Your task to perform on an android device: add a contact Image 0: 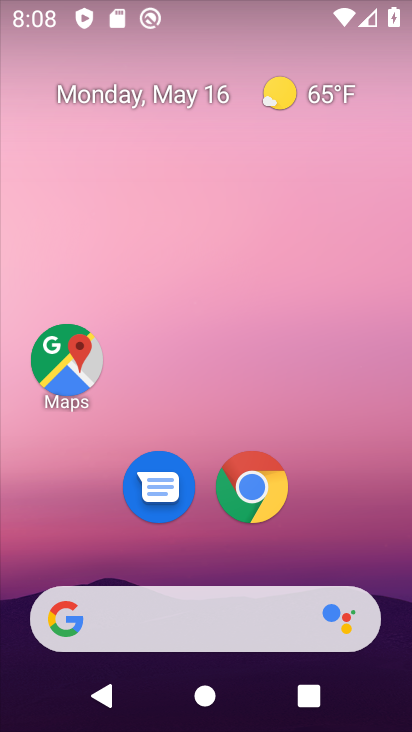
Step 0: drag from (349, 543) to (372, 189)
Your task to perform on an android device: add a contact Image 1: 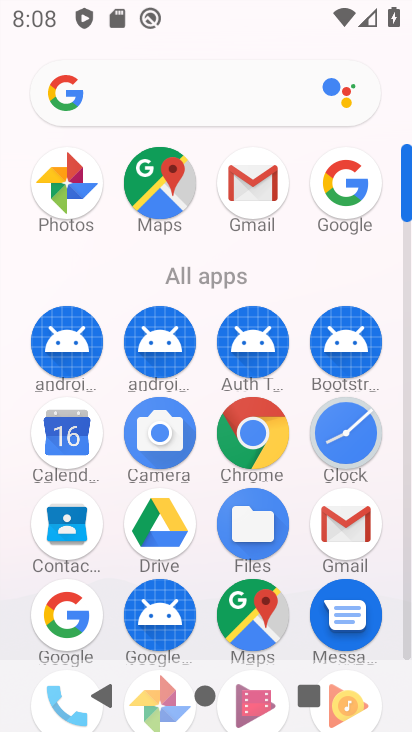
Step 1: click (79, 520)
Your task to perform on an android device: add a contact Image 2: 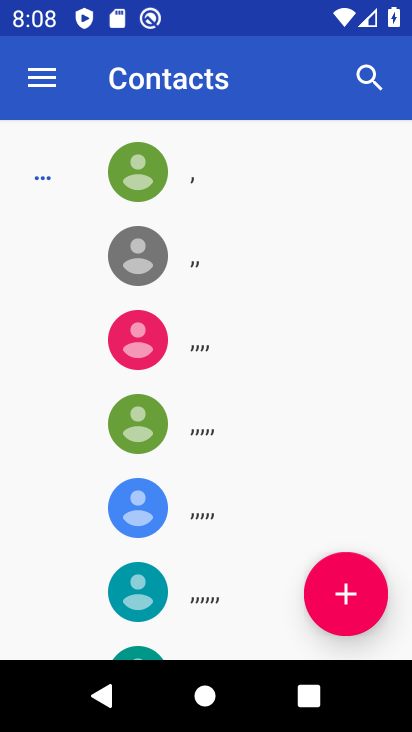
Step 2: click (344, 599)
Your task to perform on an android device: add a contact Image 3: 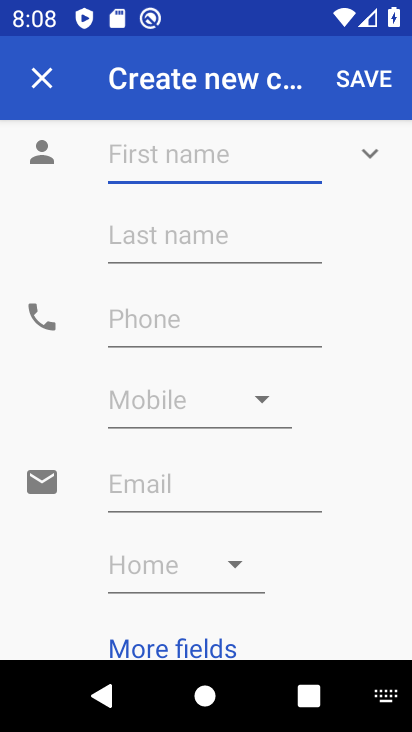
Step 3: type "love"
Your task to perform on an android device: add a contact Image 4: 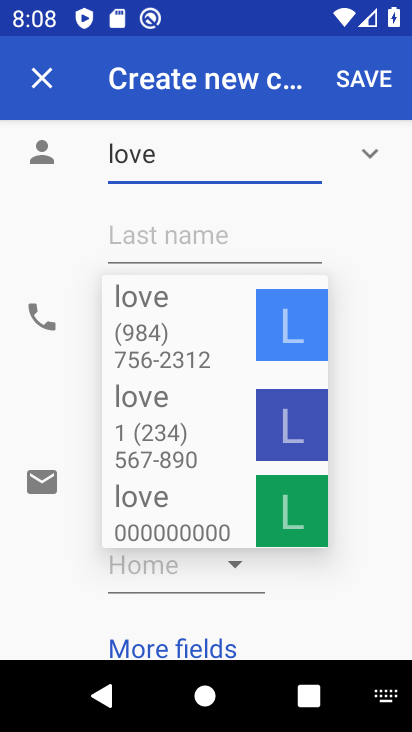
Step 4: click (380, 332)
Your task to perform on an android device: add a contact Image 5: 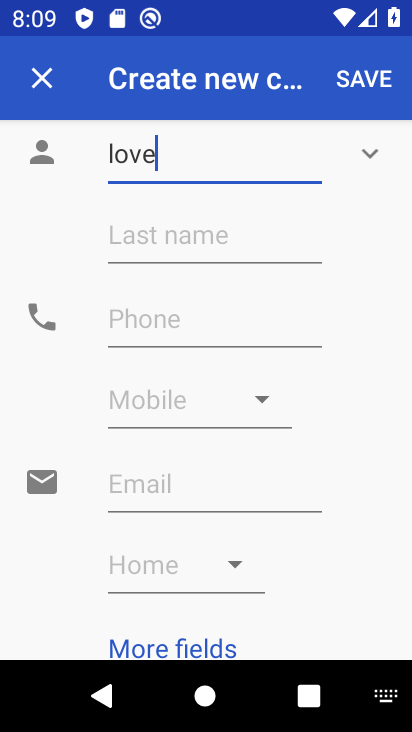
Step 5: click (191, 332)
Your task to perform on an android device: add a contact Image 6: 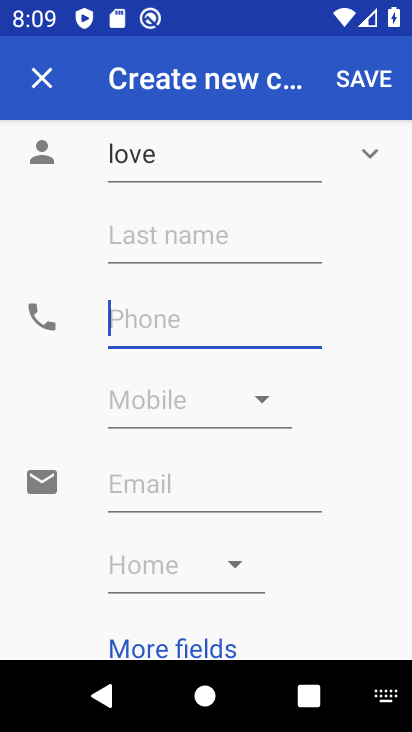
Step 6: type "123456789"
Your task to perform on an android device: add a contact Image 7: 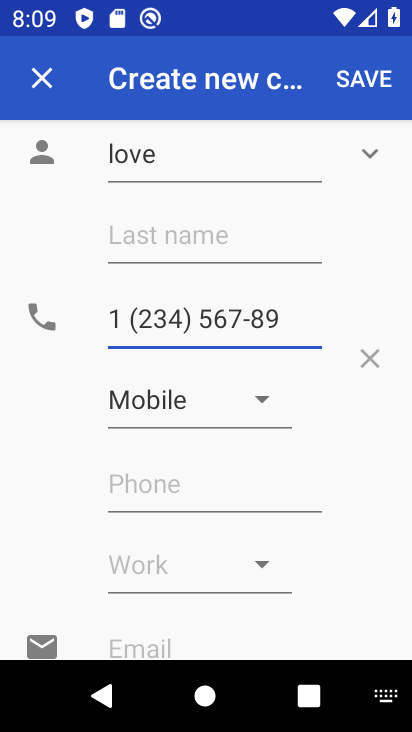
Step 7: click (376, 75)
Your task to perform on an android device: add a contact Image 8: 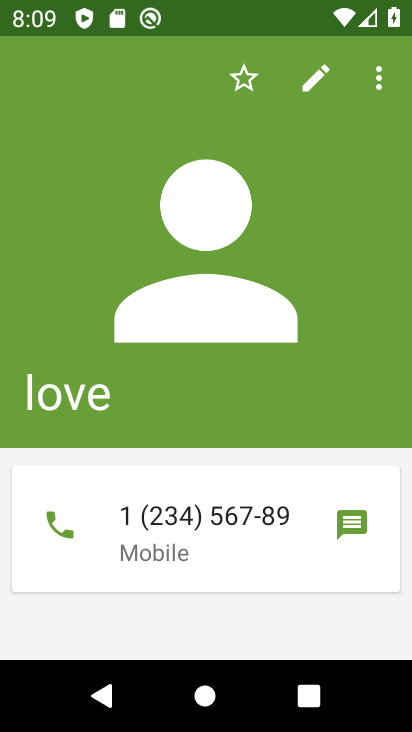
Step 8: task complete